Your task to perform on an android device: uninstall "Google Play Games" Image 0: 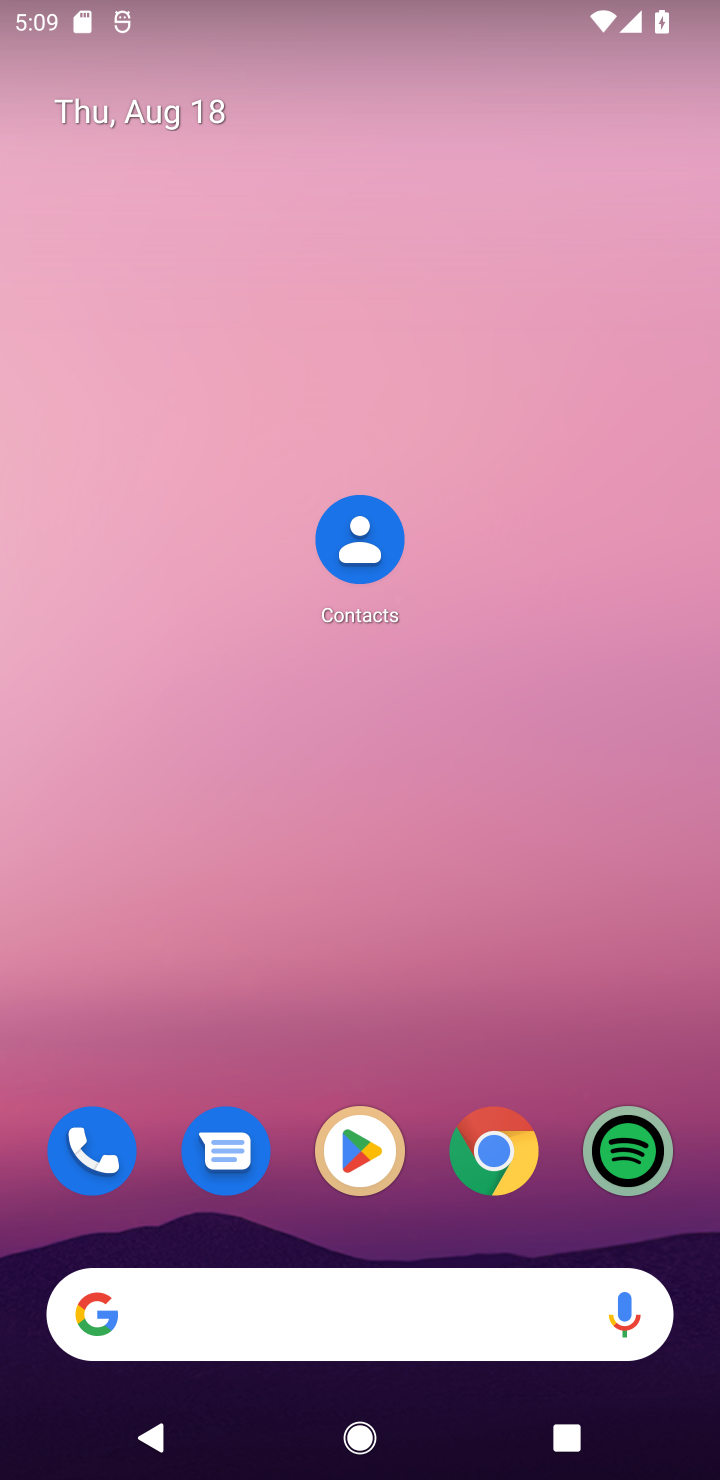
Step 0: click (340, 1174)
Your task to perform on an android device: uninstall "Google Play Games" Image 1: 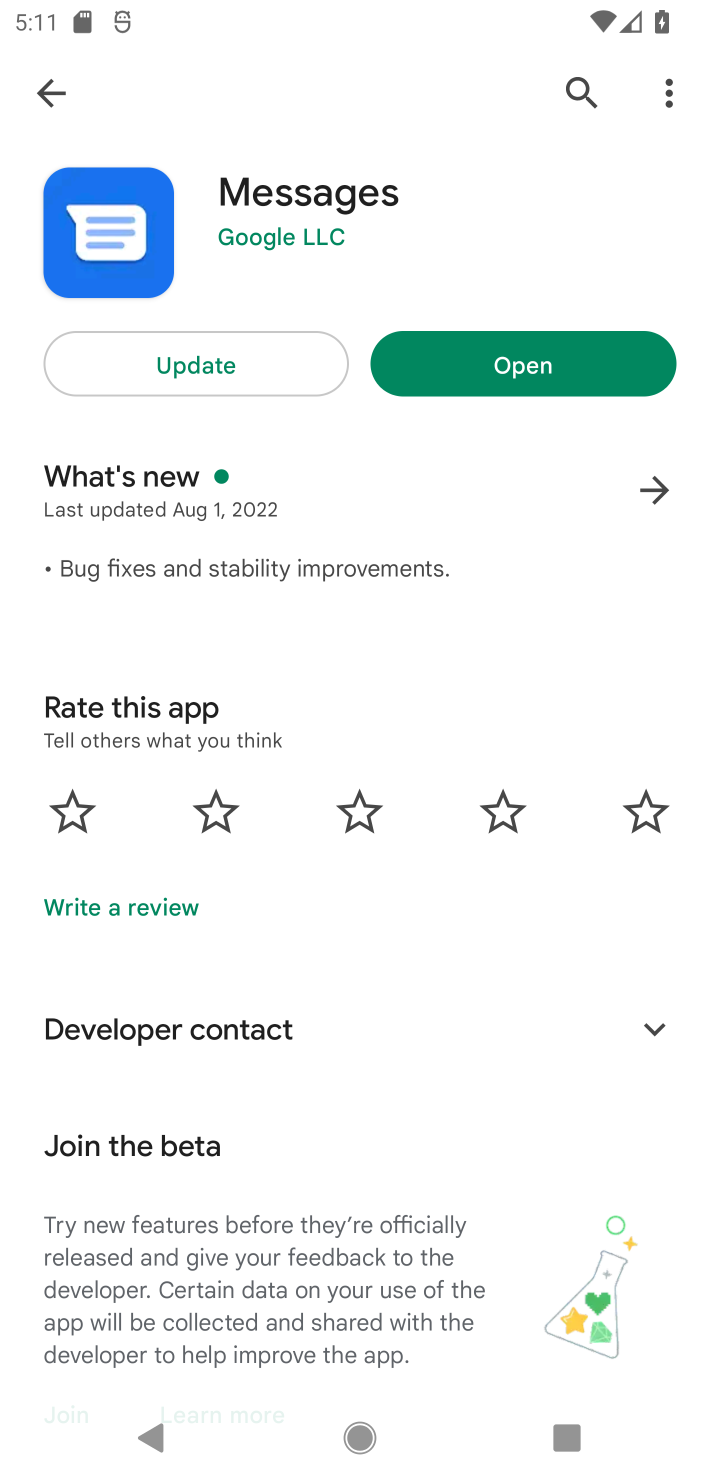
Step 1: click (596, 105)
Your task to perform on an android device: uninstall "Google Play Games" Image 2: 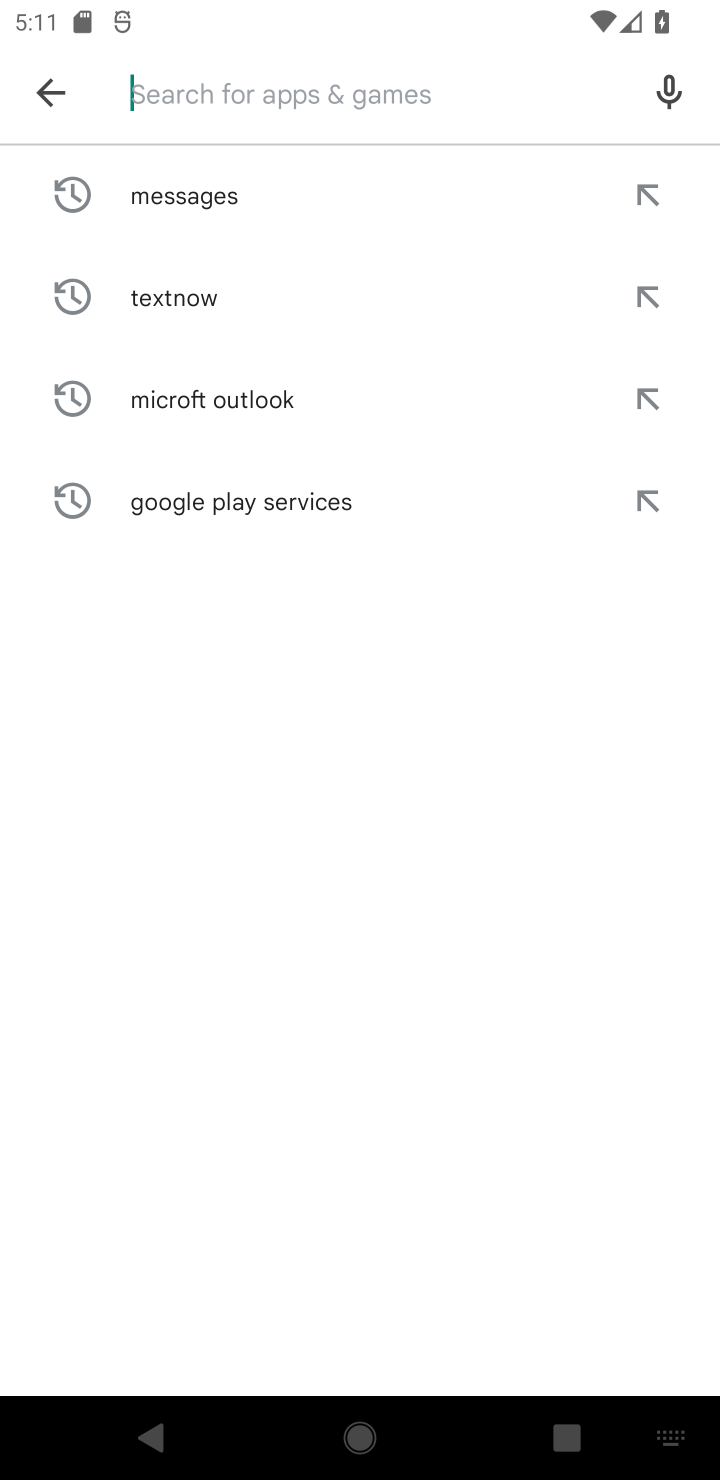
Step 2: type "google play game"
Your task to perform on an android device: uninstall "Google Play Games" Image 3: 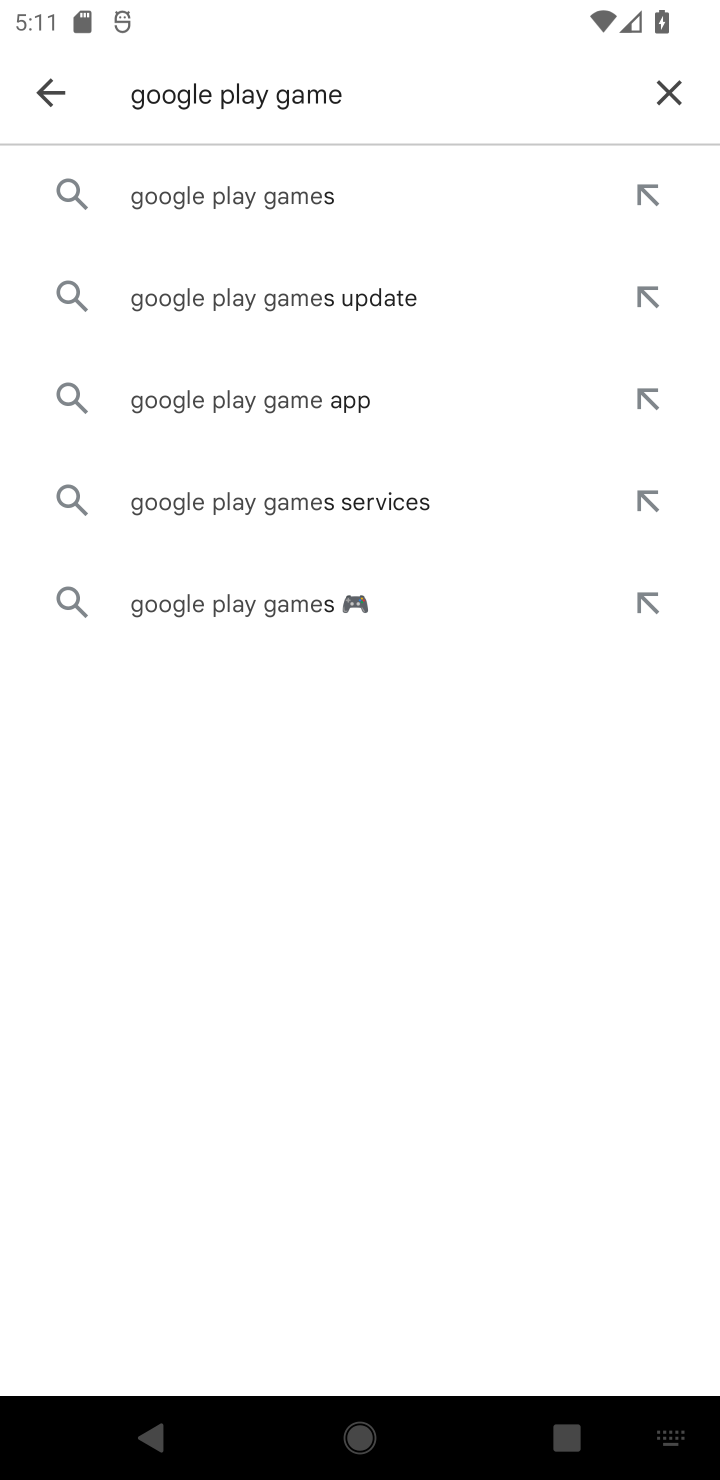
Step 3: click (434, 199)
Your task to perform on an android device: uninstall "Google Play Games" Image 4: 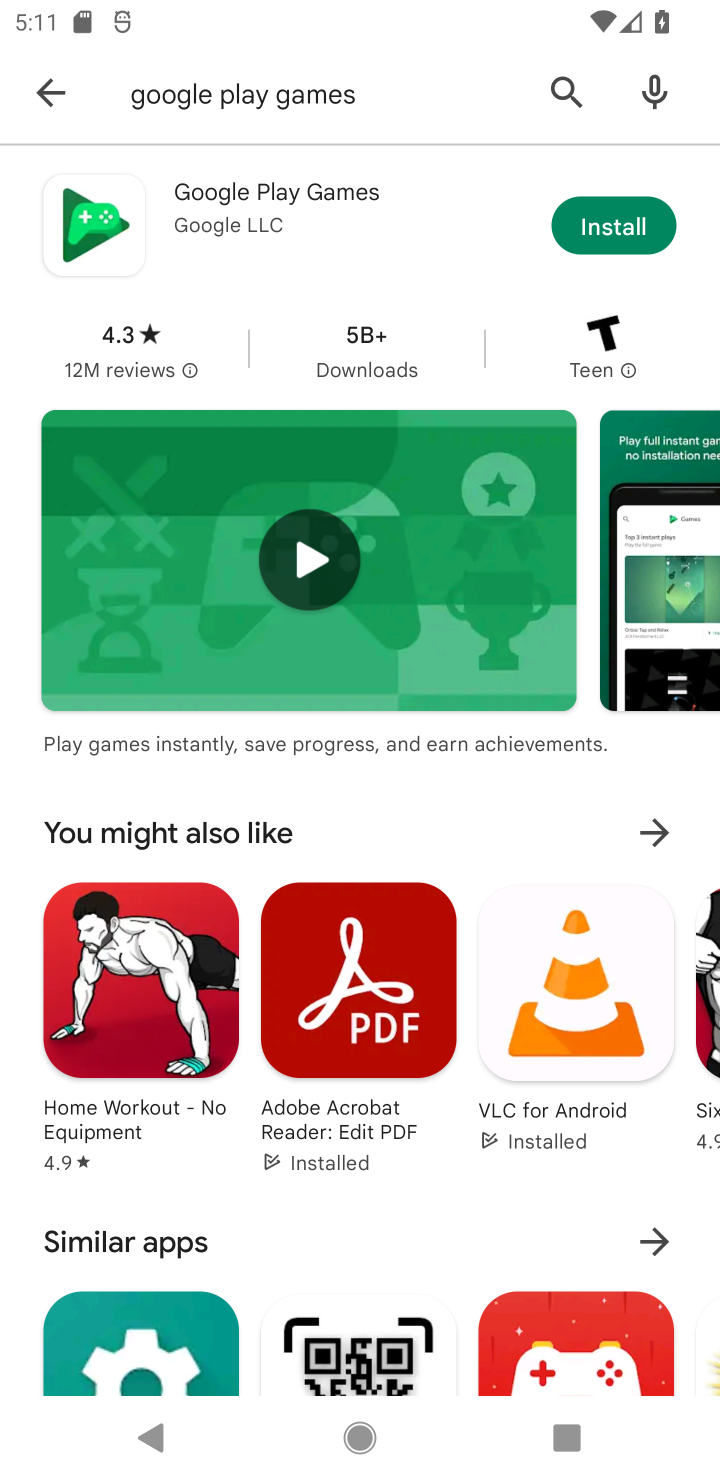
Step 4: click (572, 227)
Your task to perform on an android device: uninstall "Google Play Games" Image 5: 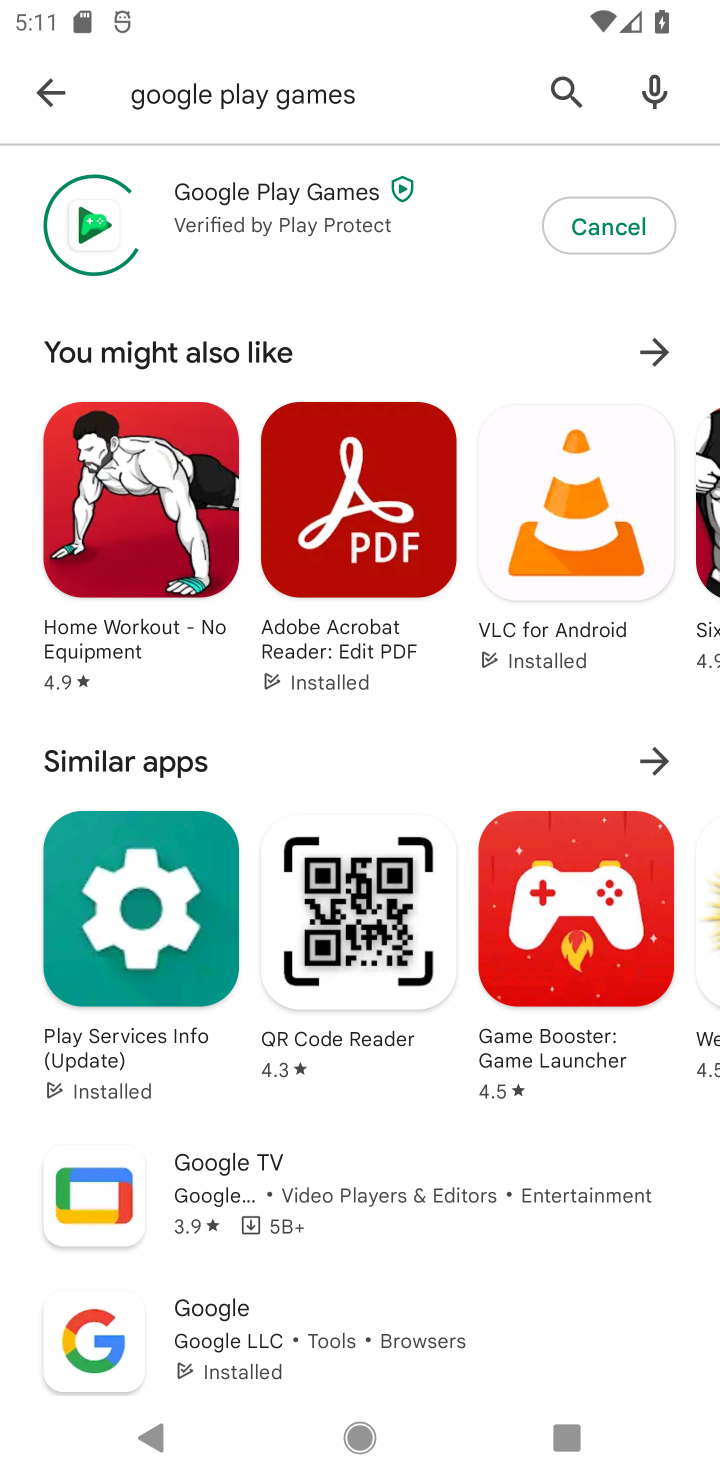
Step 5: task complete